Your task to perform on an android device: empty trash in the gmail app Image 0: 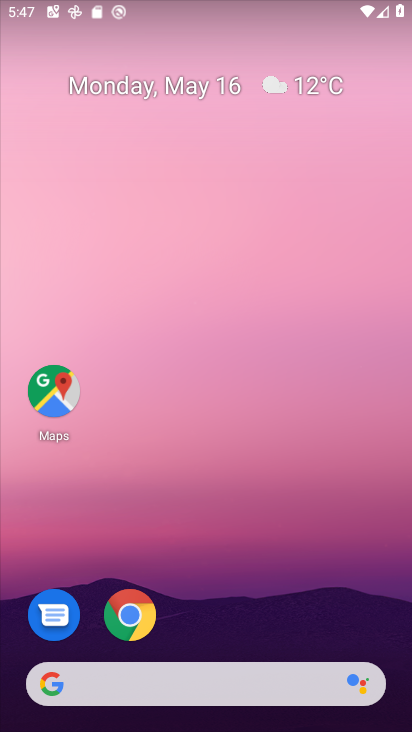
Step 0: drag from (245, 628) to (339, 111)
Your task to perform on an android device: empty trash in the gmail app Image 1: 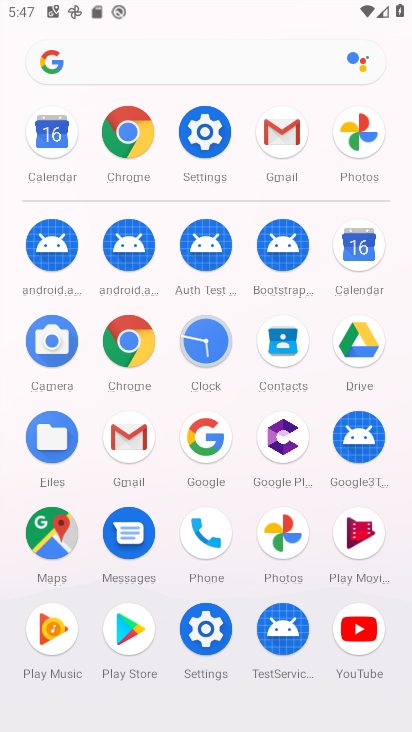
Step 1: click (271, 151)
Your task to perform on an android device: empty trash in the gmail app Image 2: 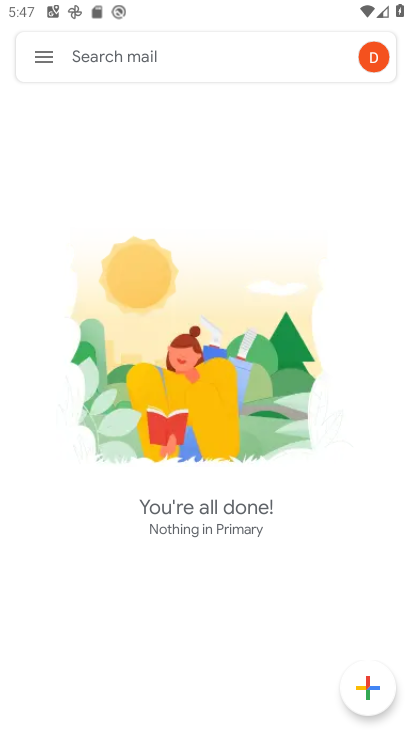
Step 2: click (41, 62)
Your task to perform on an android device: empty trash in the gmail app Image 3: 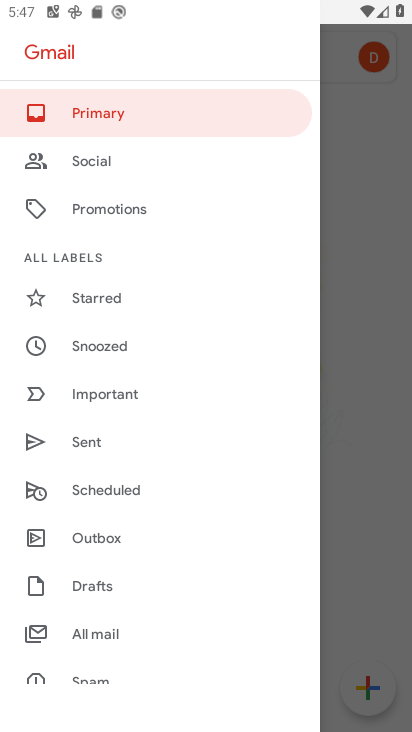
Step 3: drag from (132, 572) to (185, 290)
Your task to perform on an android device: empty trash in the gmail app Image 4: 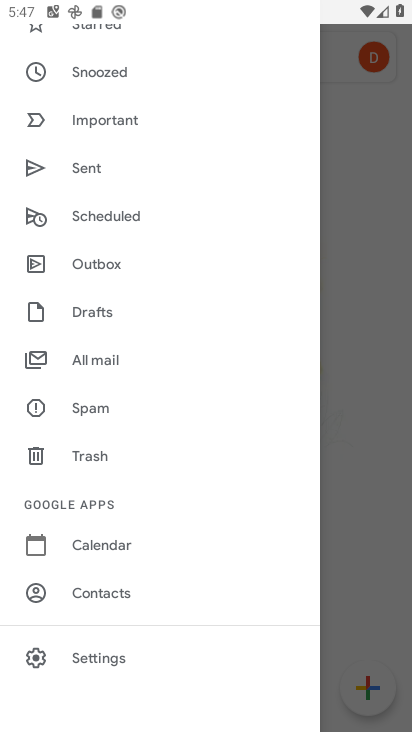
Step 4: click (96, 461)
Your task to perform on an android device: empty trash in the gmail app Image 5: 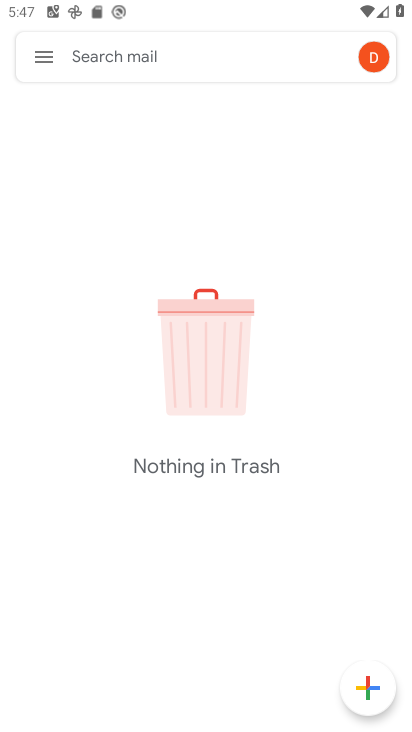
Step 5: task complete